Your task to perform on an android device: change the upload size in google photos Image 0: 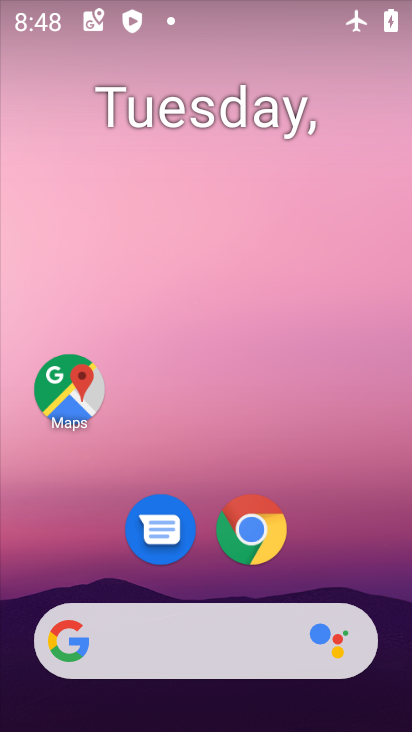
Step 0: drag from (251, 682) to (331, 35)
Your task to perform on an android device: change the upload size in google photos Image 1: 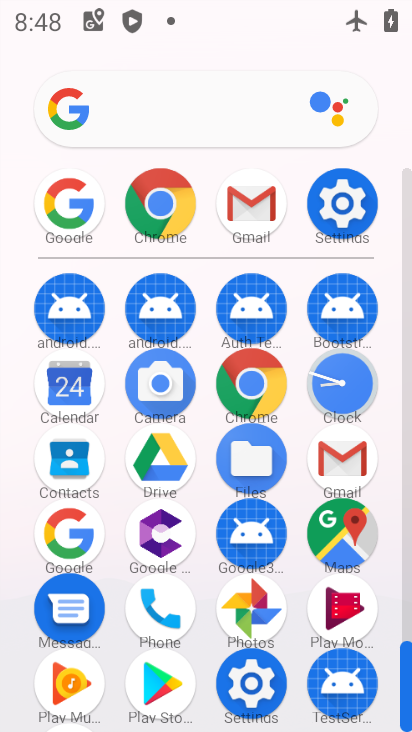
Step 1: click (256, 612)
Your task to perform on an android device: change the upload size in google photos Image 2: 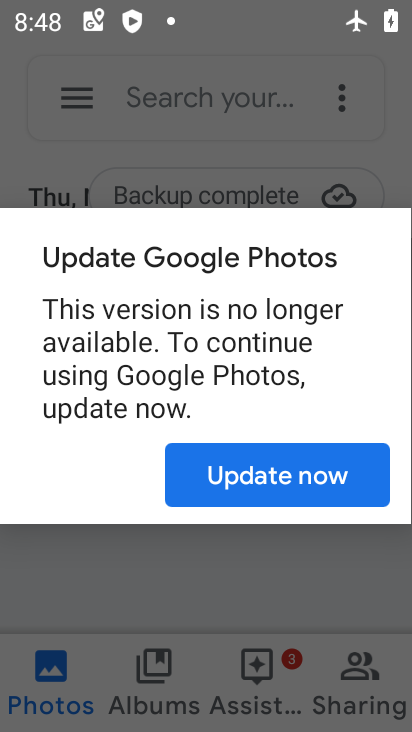
Step 2: click (263, 483)
Your task to perform on an android device: change the upload size in google photos Image 3: 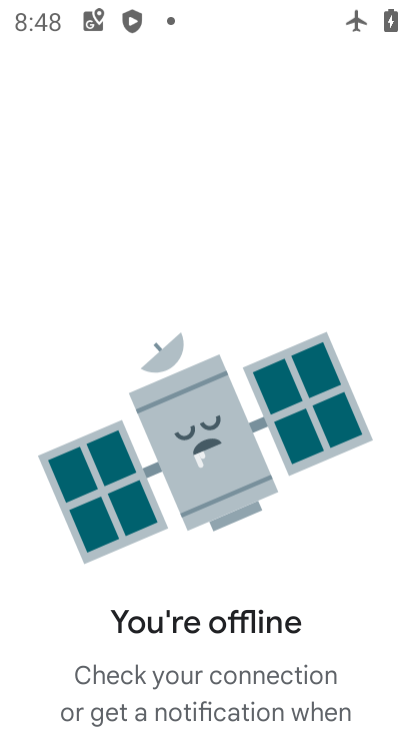
Step 3: task complete